Your task to perform on an android device: all mails in gmail Image 0: 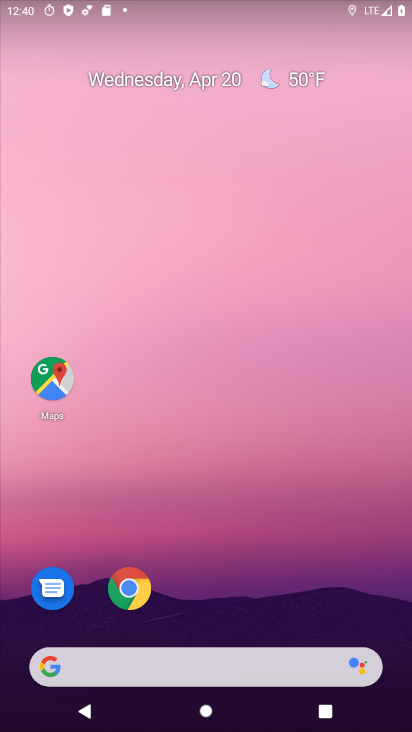
Step 0: drag from (204, 650) to (229, 9)
Your task to perform on an android device: all mails in gmail Image 1: 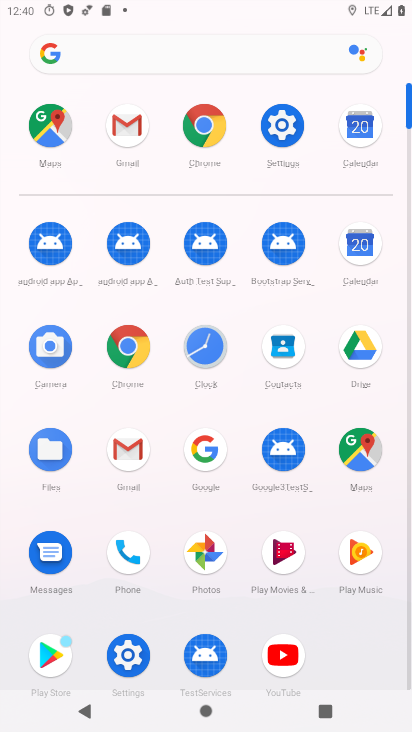
Step 1: click (125, 445)
Your task to perform on an android device: all mails in gmail Image 2: 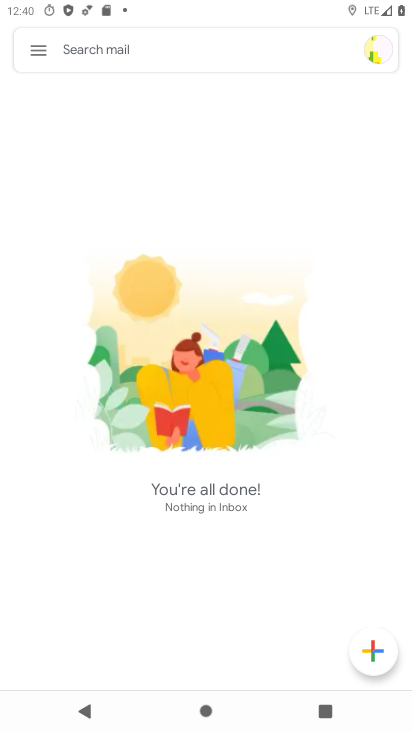
Step 2: click (43, 55)
Your task to perform on an android device: all mails in gmail Image 3: 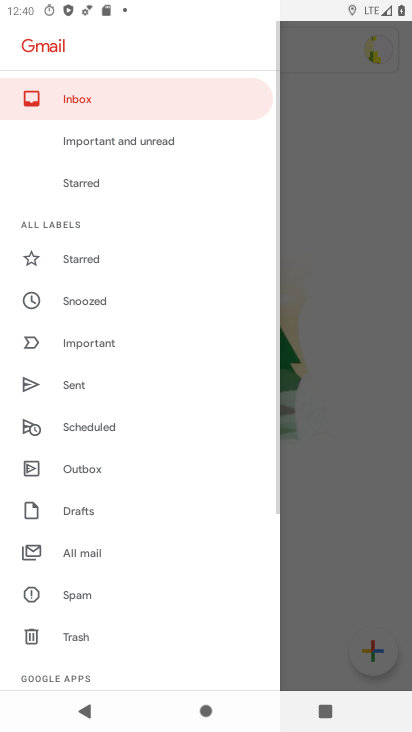
Step 3: click (106, 551)
Your task to perform on an android device: all mails in gmail Image 4: 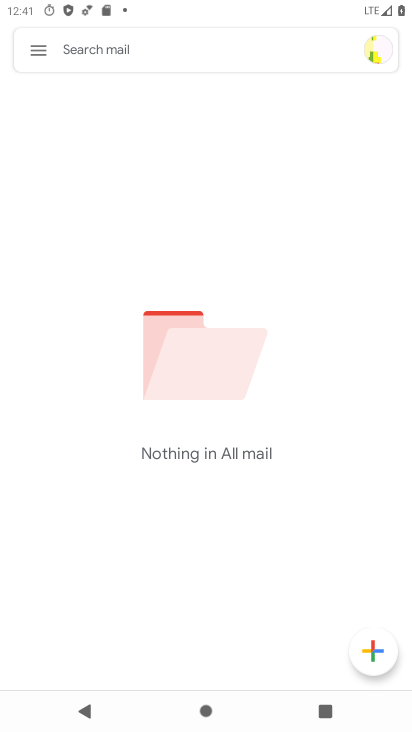
Step 4: task complete